Your task to perform on an android device: Play the latest video from the Huffington Post Image 0: 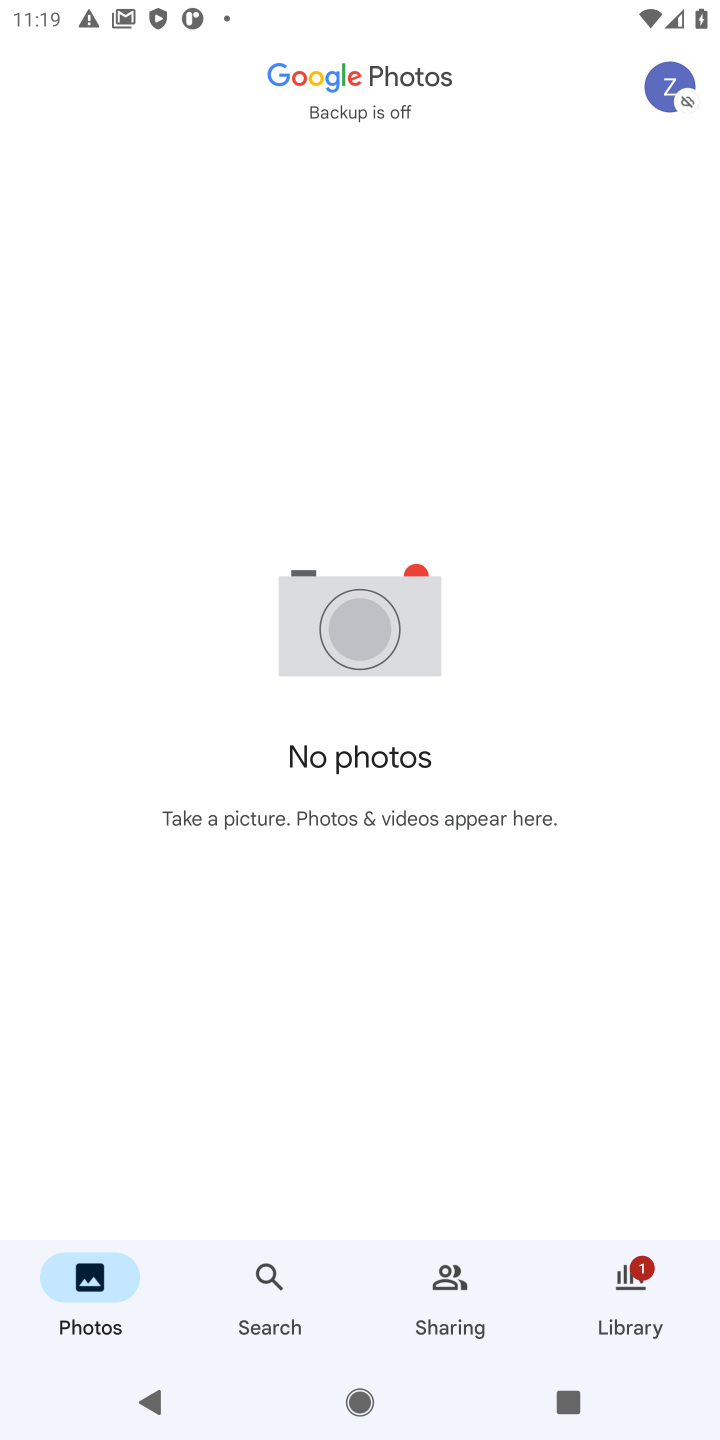
Step 0: press home button
Your task to perform on an android device: Play the latest video from the Huffington Post Image 1: 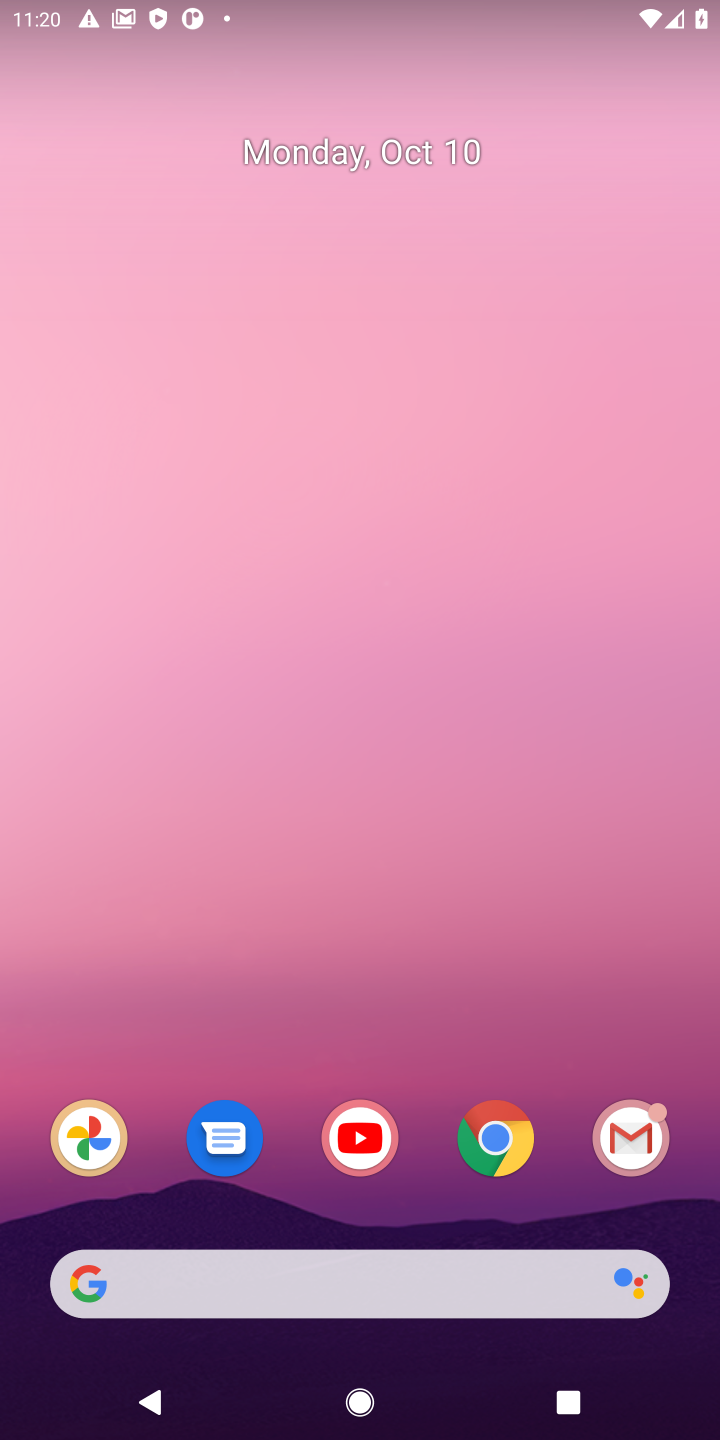
Step 1: click (369, 1136)
Your task to perform on an android device: Play the latest video from the Huffington Post Image 2: 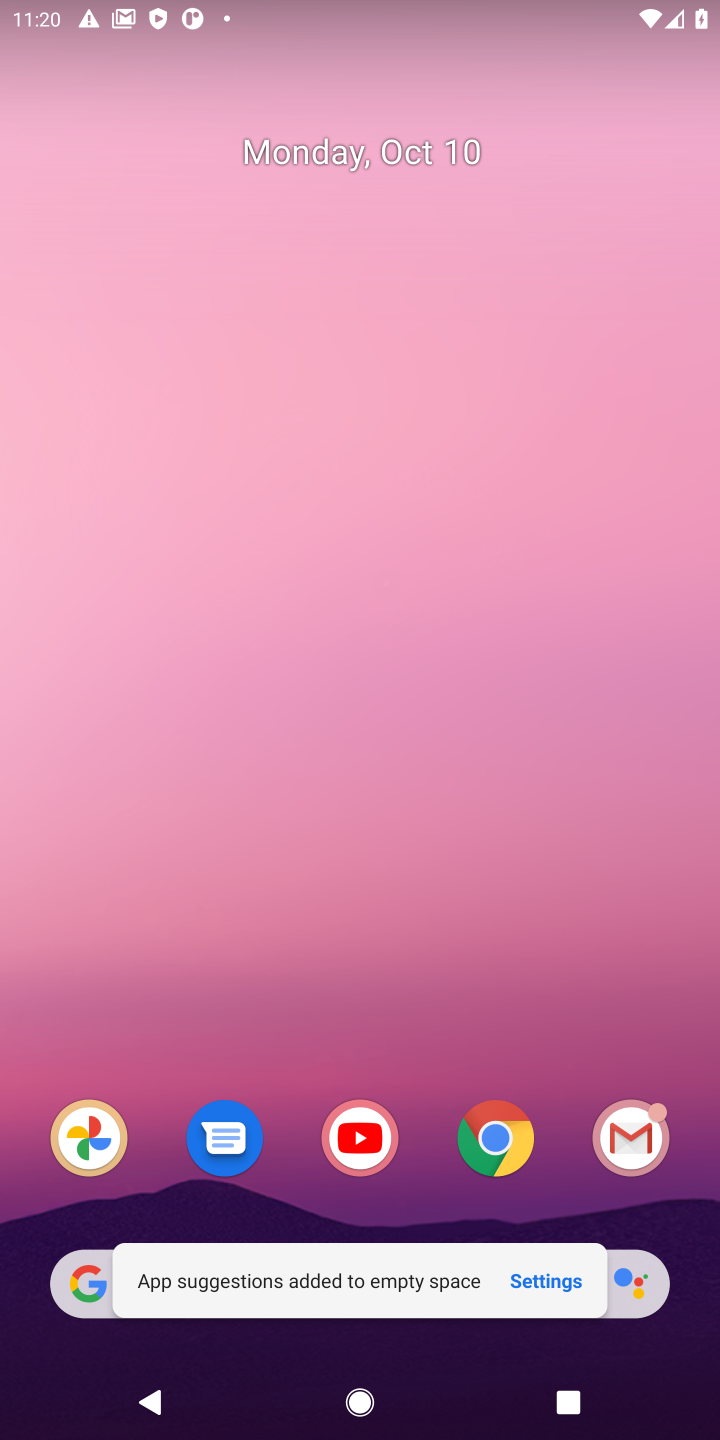
Step 2: click (372, 1139)
Your task to perform on an android device: Play the latest video from the Huffington Post Image 3: 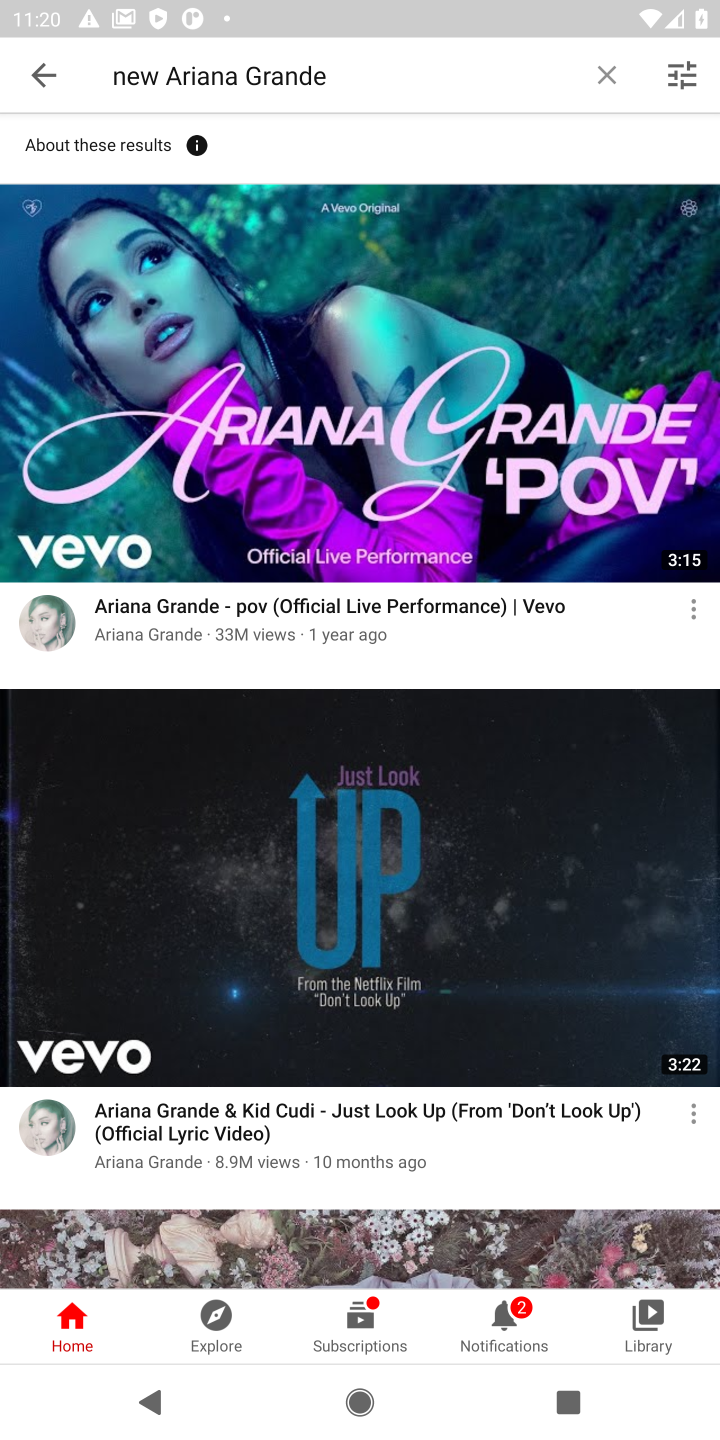
Step 3: click (599, 72)
Your task to perform on an android device: Play the latest video from the Huffington Post Image 4: 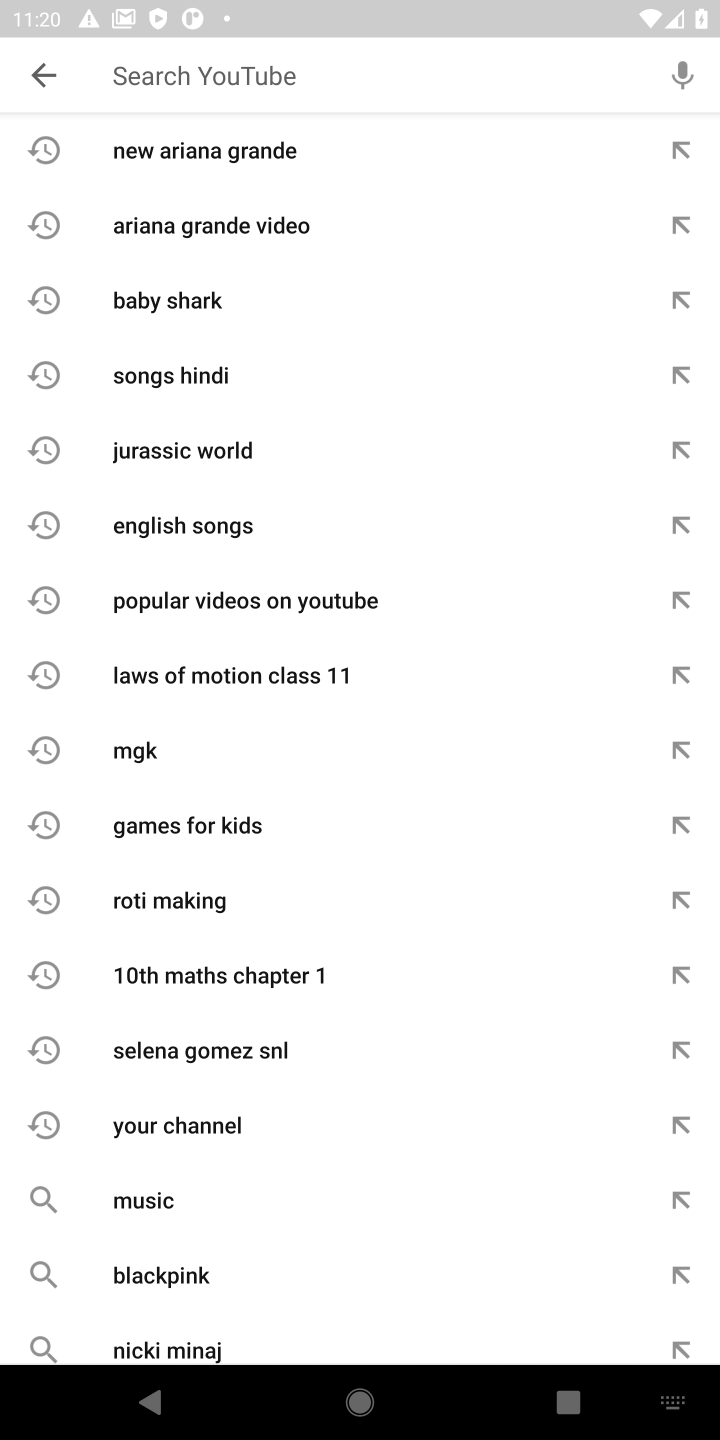
Step 4: type "Huffington Post"
Your task to perform on an android device: Play the latest video from the Huffington Post Image 5: 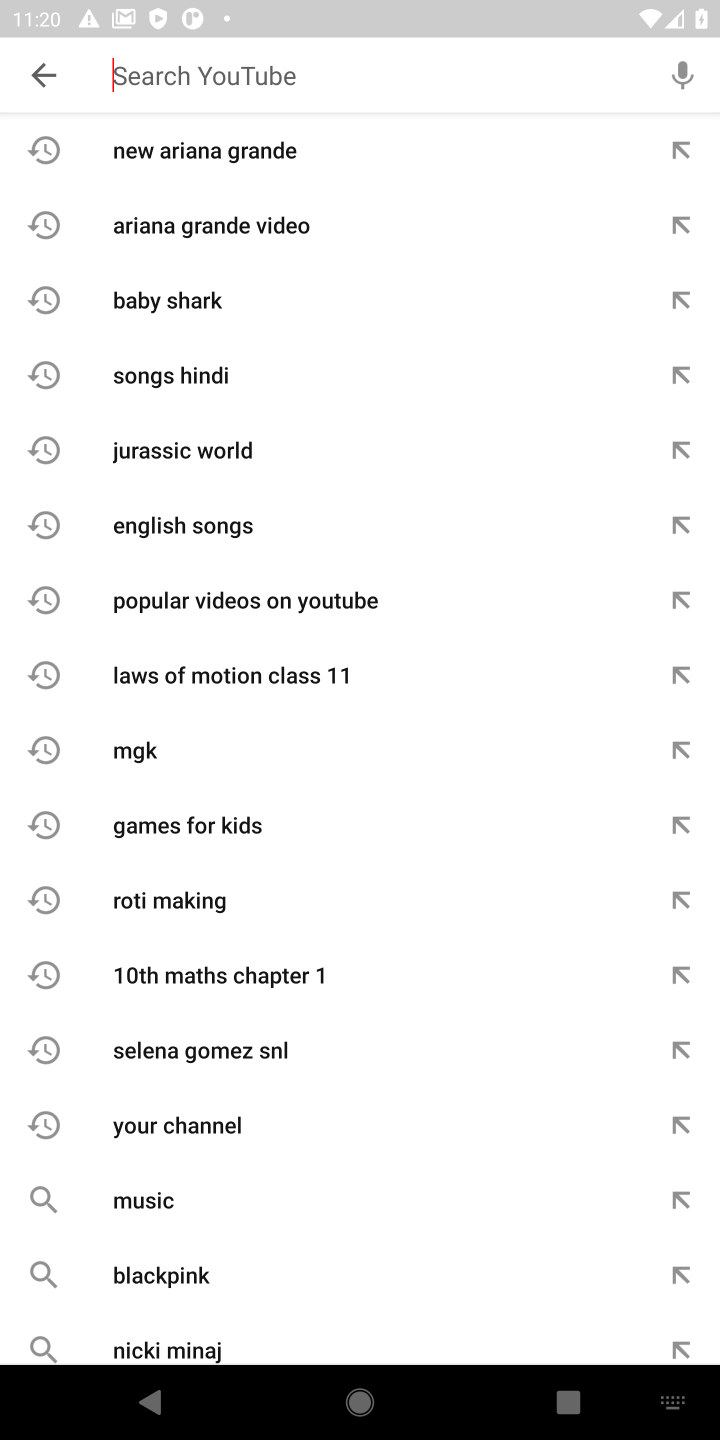
Step 5: click (210, 78)
Your task to perform on an android device: Play the latest video from the Huffington Post Image 6: 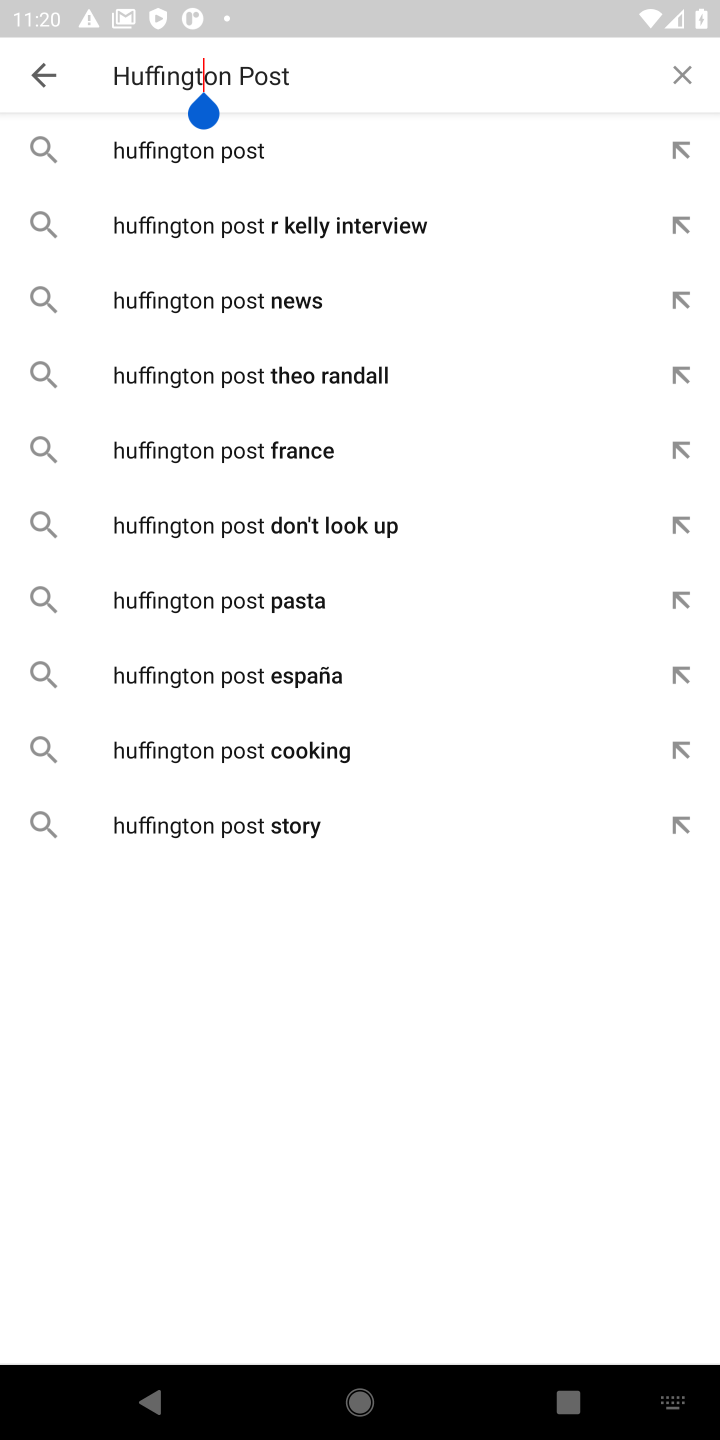
Step 6: press enter
Your task to perform on an android device: Play the latest video from the Huffington Post Image 7: 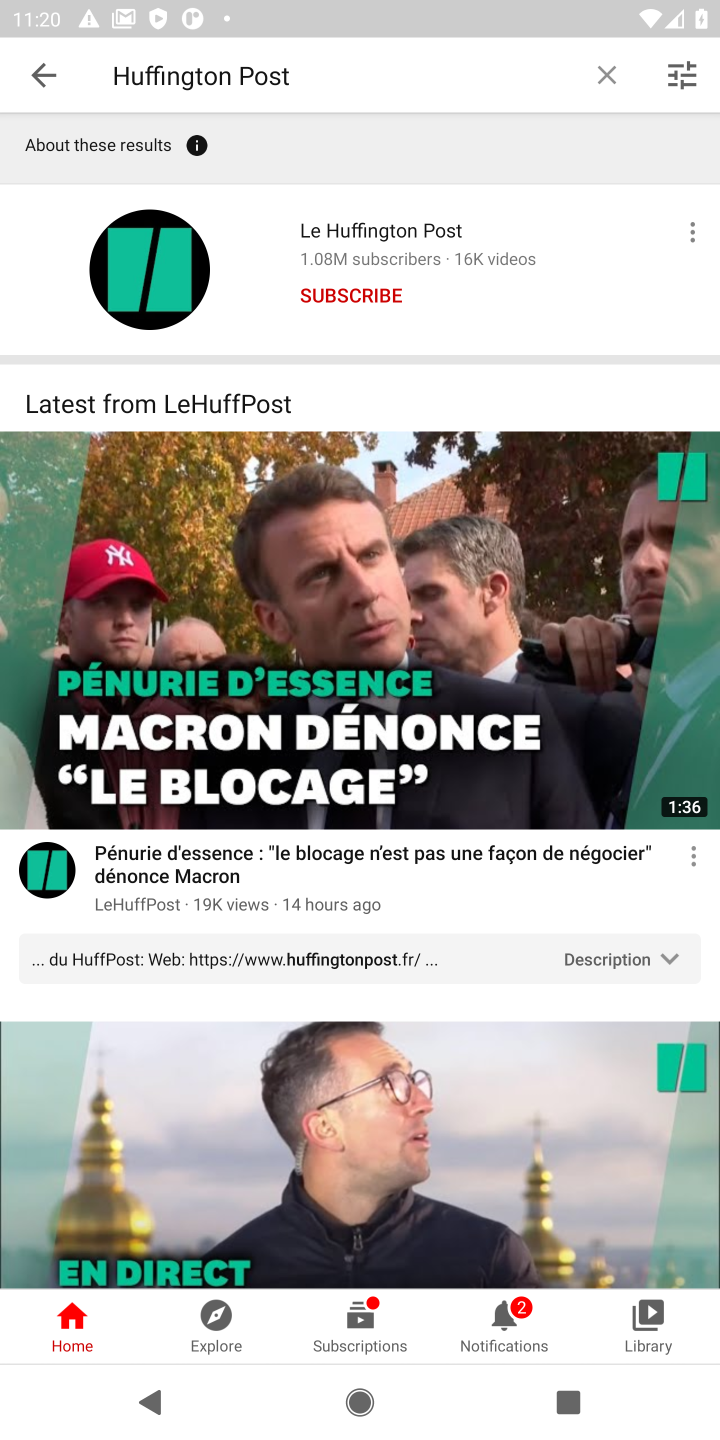
Step 7: click (156, 615)
Your task to perform on an android device: Play the latest video from the Huffington Post Image 8: 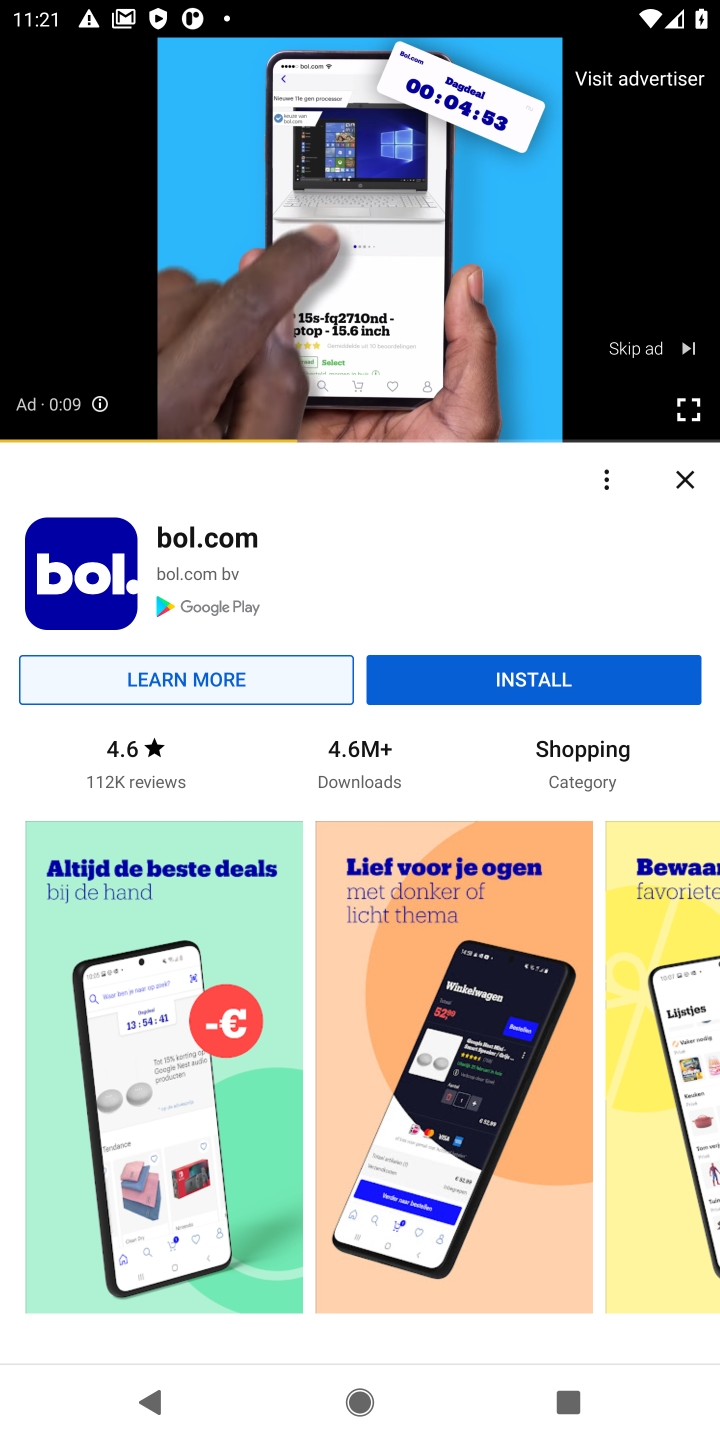
Step 8: click (648, 348)
Your task to perform on an android device: Play the latest video from the Huffington Post Image 9: 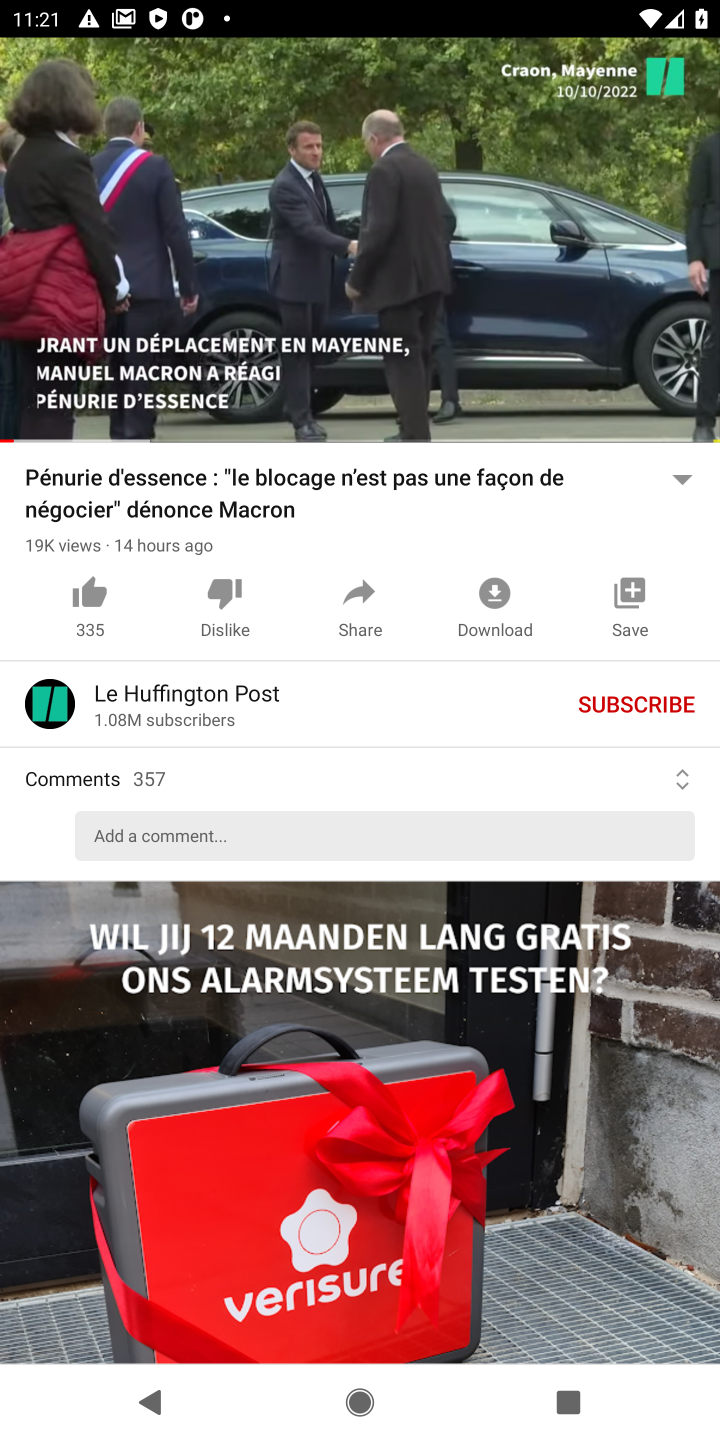
Step 9: click (355, 301)
Your task to perform on an android device: Play the latest video from the Huffington Post Image 10: 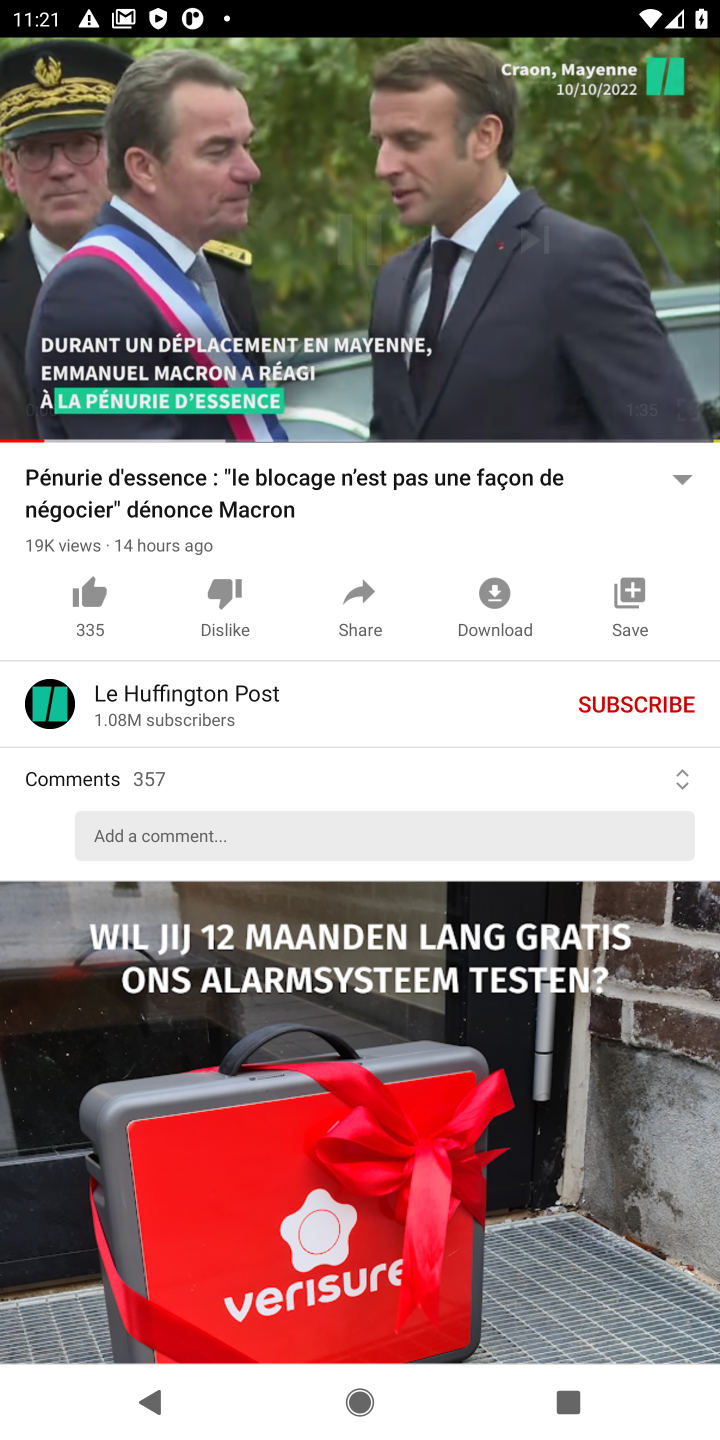
Step 10: click (346, 258)
Your task to perform on an android device: Play the latest video from the Huffington Post Image 11: 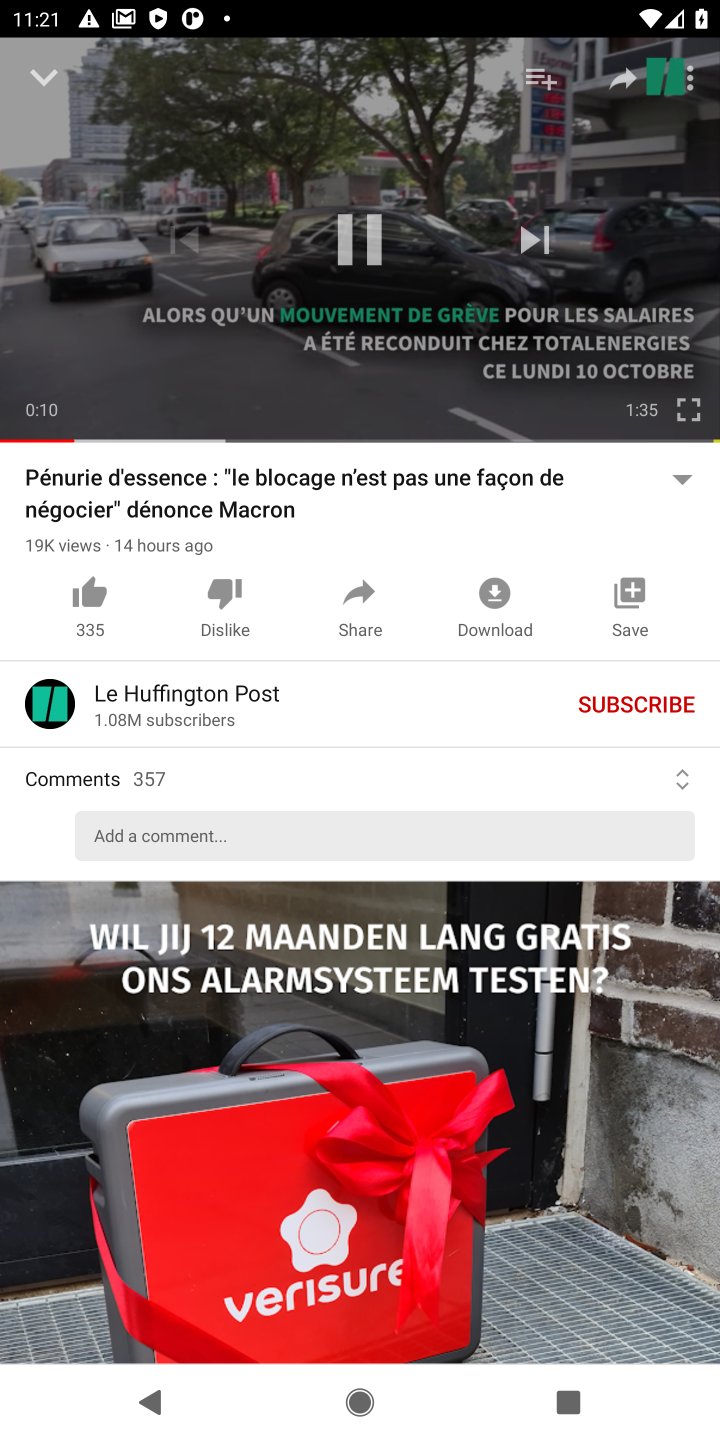
Step 11: click (369, 236)
Your task to perform on an android device: Play the latest video from the Huffington Post Image 12: 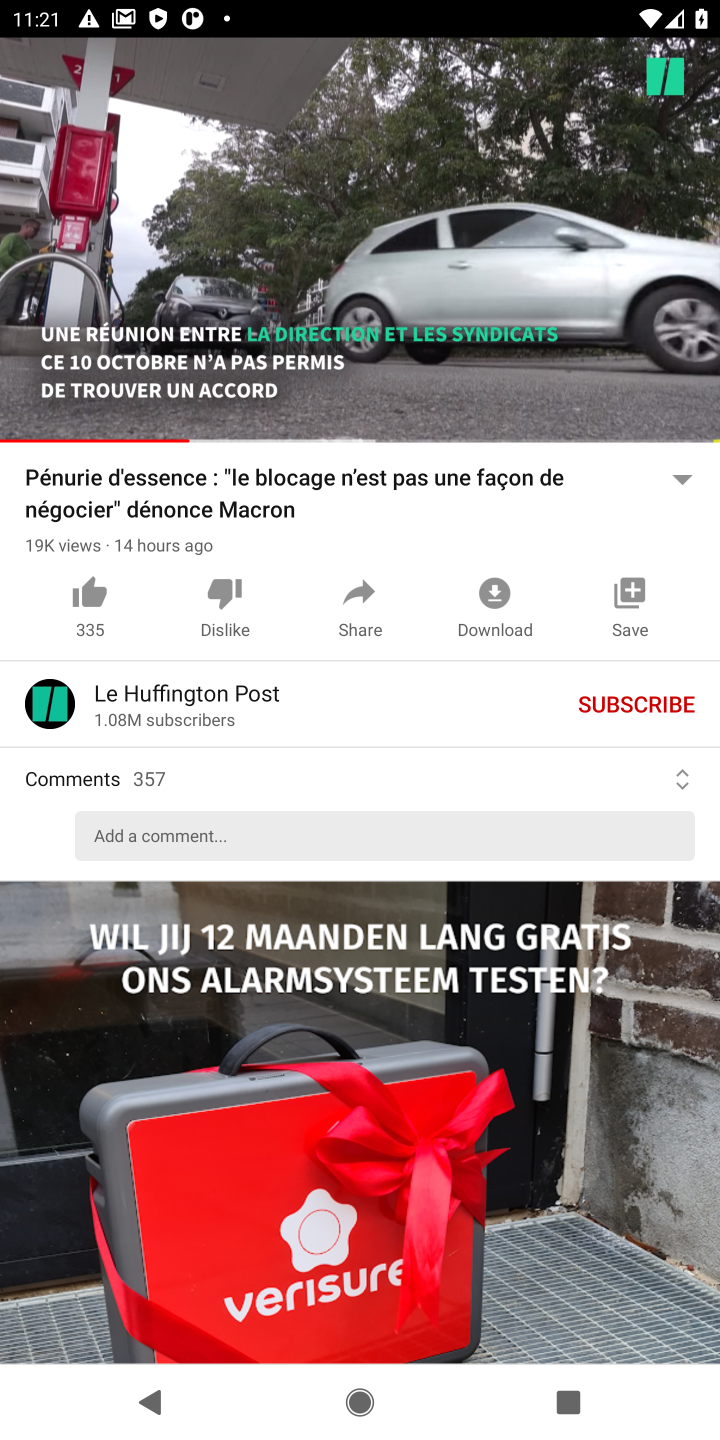
Step 12: task complete